Your task to perform on an android device: Search for vegetarian restaurants on Maps Image 0: 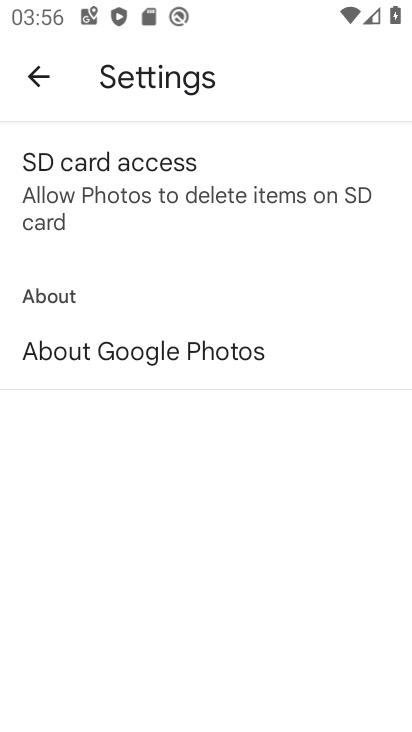
Step 0: press home button
Your task to perform on an android device: Search for vegetarian restaurants on Maps Image 1: 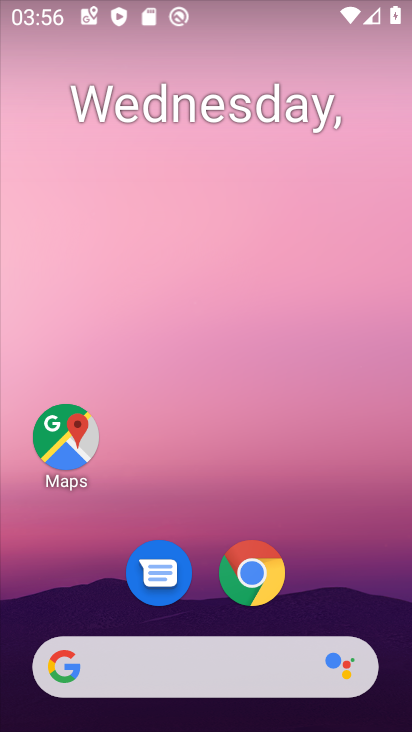
Step 1: click (69, 436)
Your task to perform on an android device: Search for vegetarian restaurants on Maps Image 2: 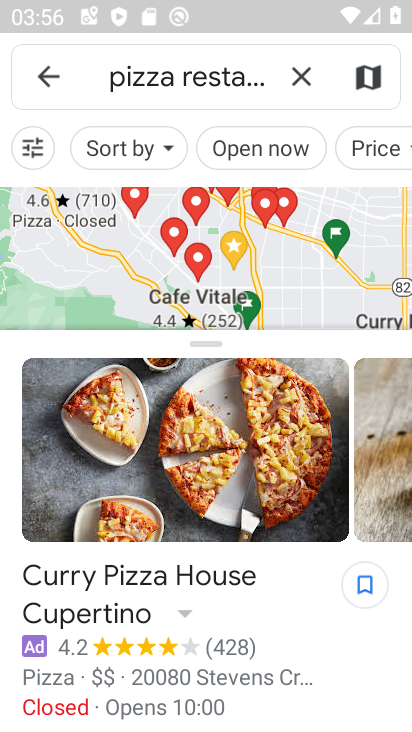
Step 2: click (301, 72)
Your task to perform on an android device: Search for vegetarian restaurants on Maps Image 3: 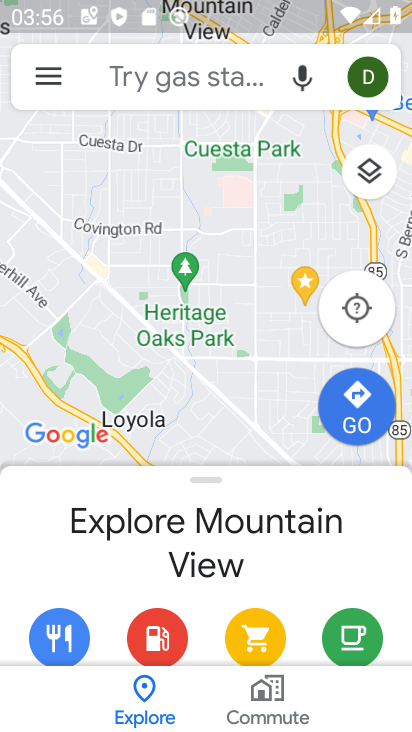
Step 3: click (198, 78)
Your task to perform on an android device: Search for vegetarian restaurants on Maps Image 4: 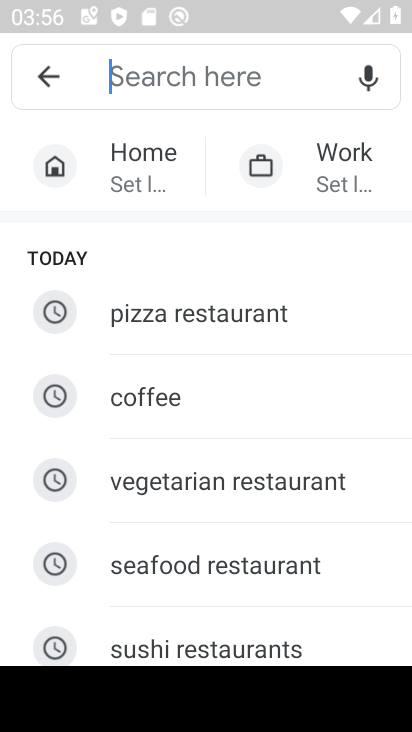
Step 4: click (270, 489)
Your task to perform on an android device: Search for vegetarian restaurants on Maps Image 5: 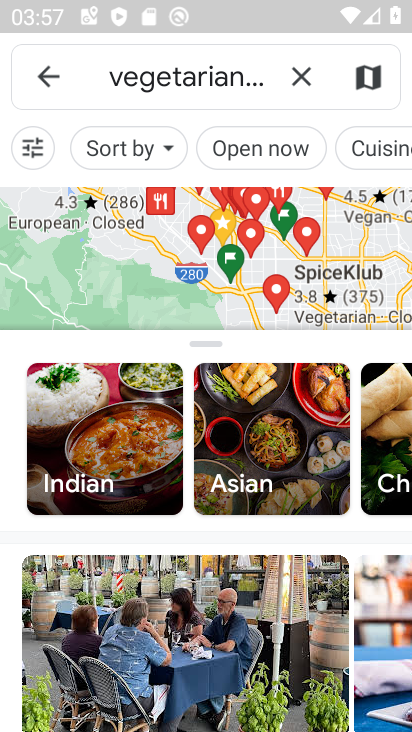
Step 5: task complete